Your task to perform on an android device: toggle pop-ups in chrome Image 0: 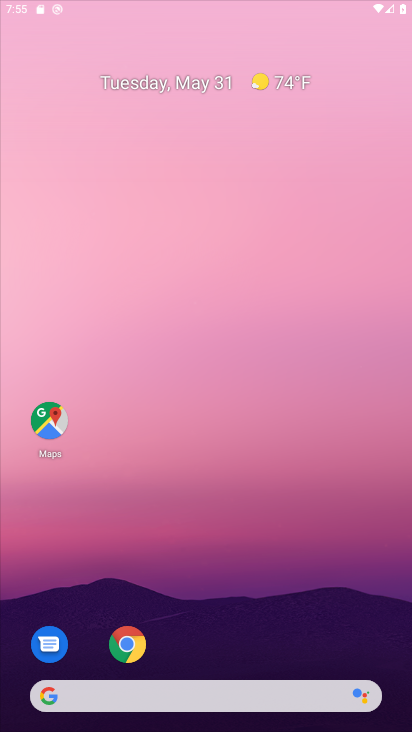
Step 0: press home button
Your task to perform on an android device: toggle pop-ups in chrome Image 1: 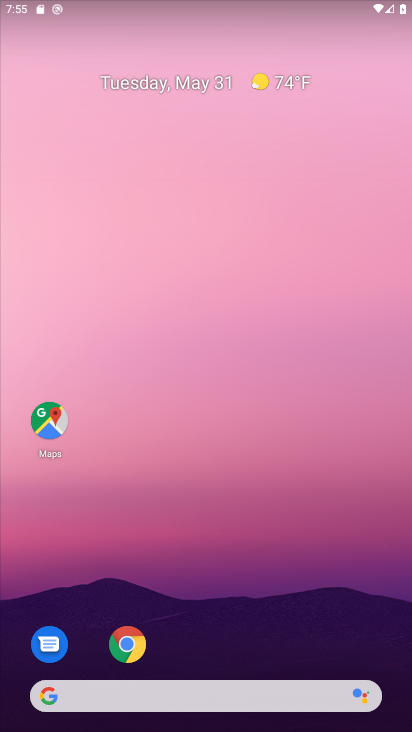
Step 1: click (138, 647)
Your task to perform on an android device: toggle pop-ups in chrome Image 2: 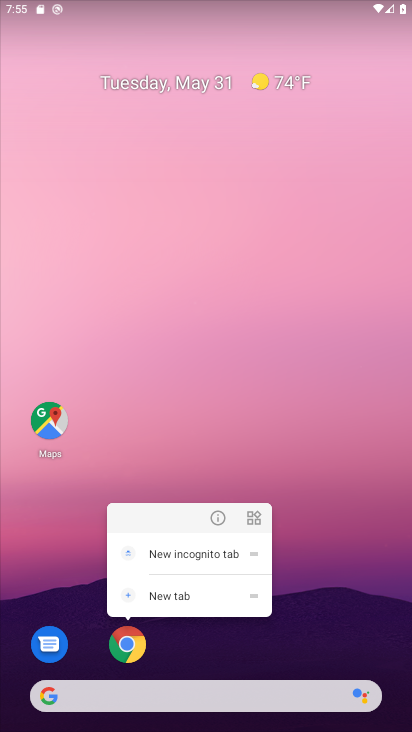
Step 2: click (130, 645)
Your task to perform on an android device: toggle pop-ups in chrome Image 3: 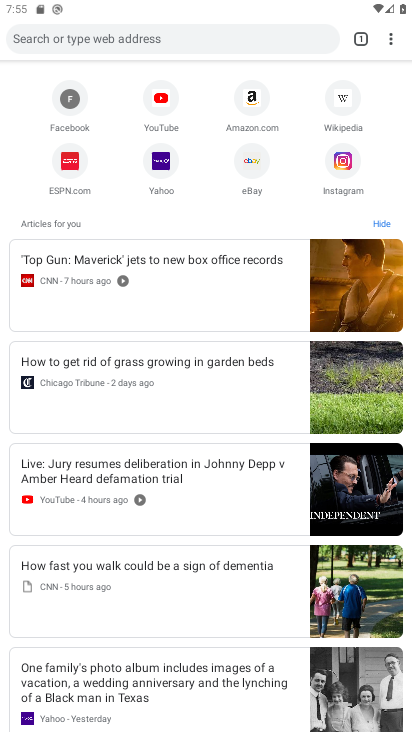
Step 3: click (391, 37)
Your task to perform on an android device: toggle pop-ups in chrome Image 4: 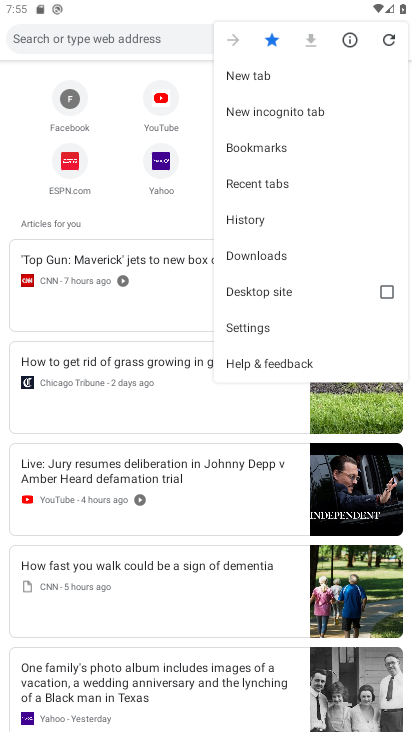
Step 4: click (281, 326)
Your task to perform on an android device: toggle pop-ups in chrome Image 5: 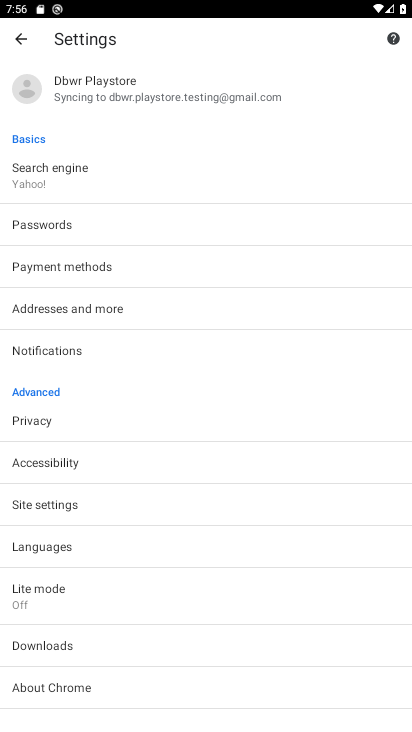
Step 5: click (89, 507)
Your task to perform on an android device: toggle pop-ups in chrome Image 6: 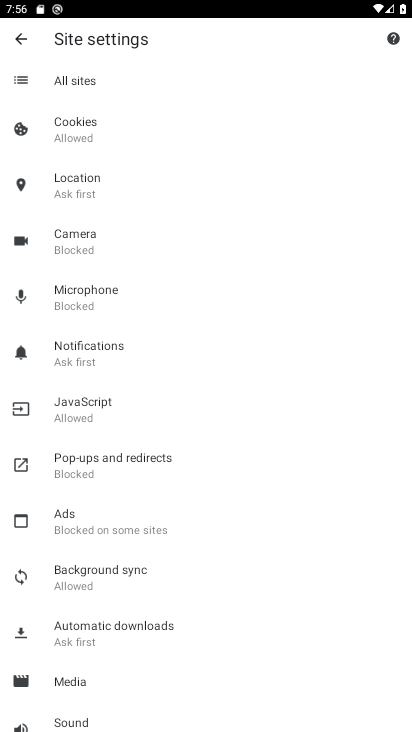
Step 6: click (103, 466)
Your task to perform on an android device: toggle pop-ups in chrome Image 7: 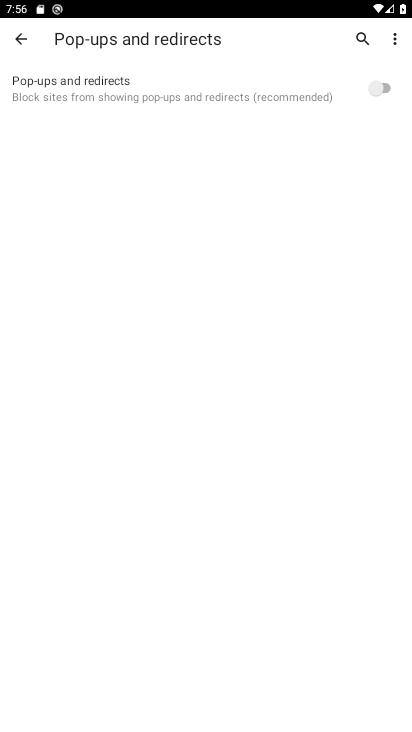
Step 7: click (389, 88)
Your task to perform on an android device: toggle pop-ups in chrome Image 8: 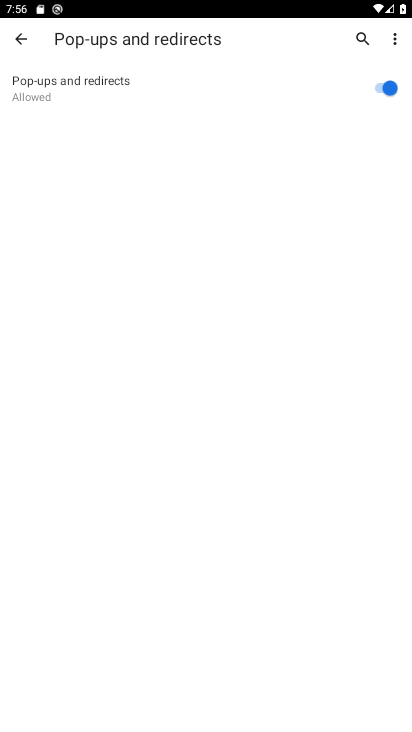
Step 8: task complete